Your task to perform on an android device: Search for good Indian restaurants Image 0: 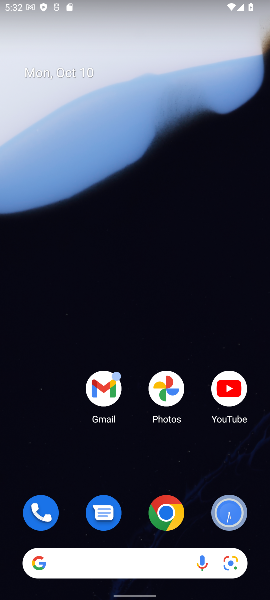
Step 0: click (170, 563)
Your task to perform on an android device: Search for good Indian restaurants Image 1: 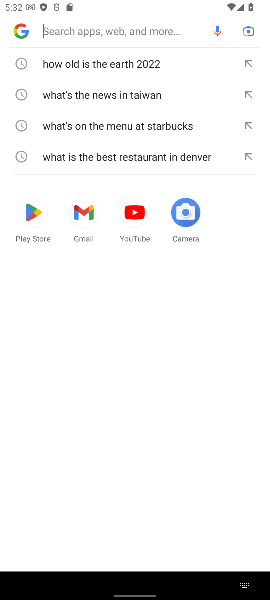
Step 1: type "Search for good Indian restaurants"
Your task to perform on an android device: Search for good Indian restaurants Image 2: 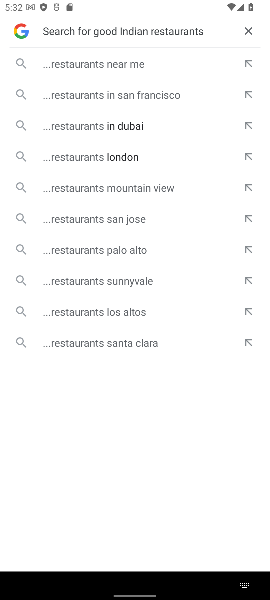
Step 2: click (64, 59)
Your task to perform on an android device: Search for good Indian restaurants Image 3: 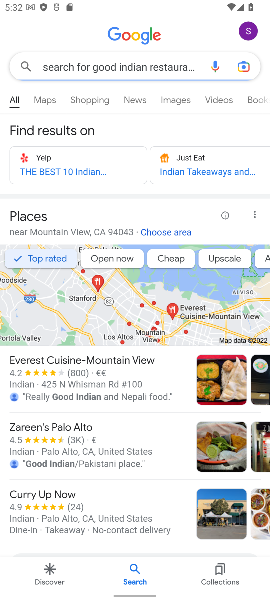
Step 3: task complete